Your task to perform on an android device: Add "lg ultragear" to the cart on amazon.com, then select checkout. Image 0: 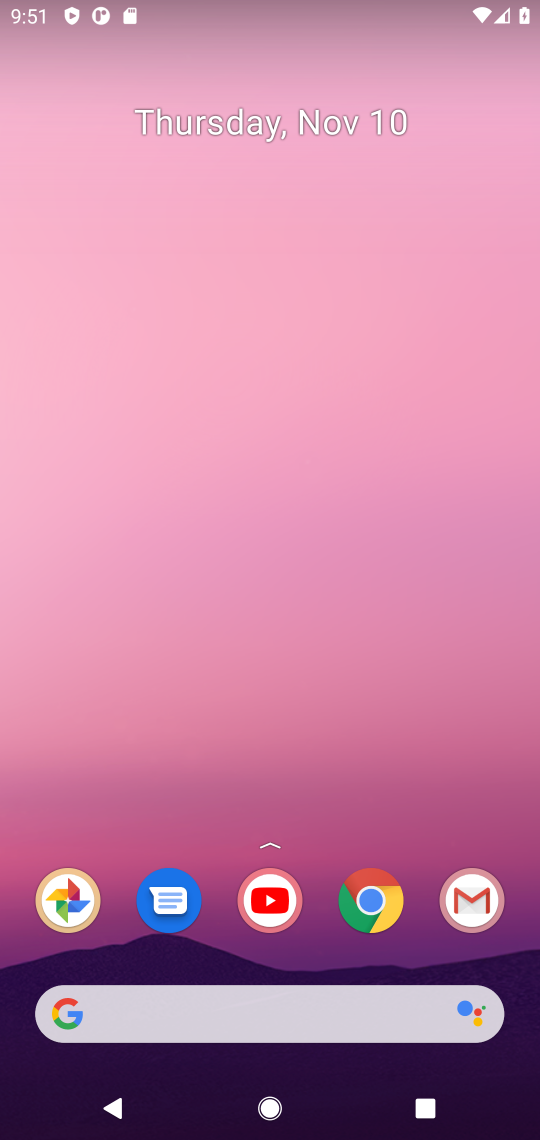
Step 0: press home button
Your task to perform on an android device: Add "lg ultragear" to the cart on amazon.com, then select checkout. Image 1: 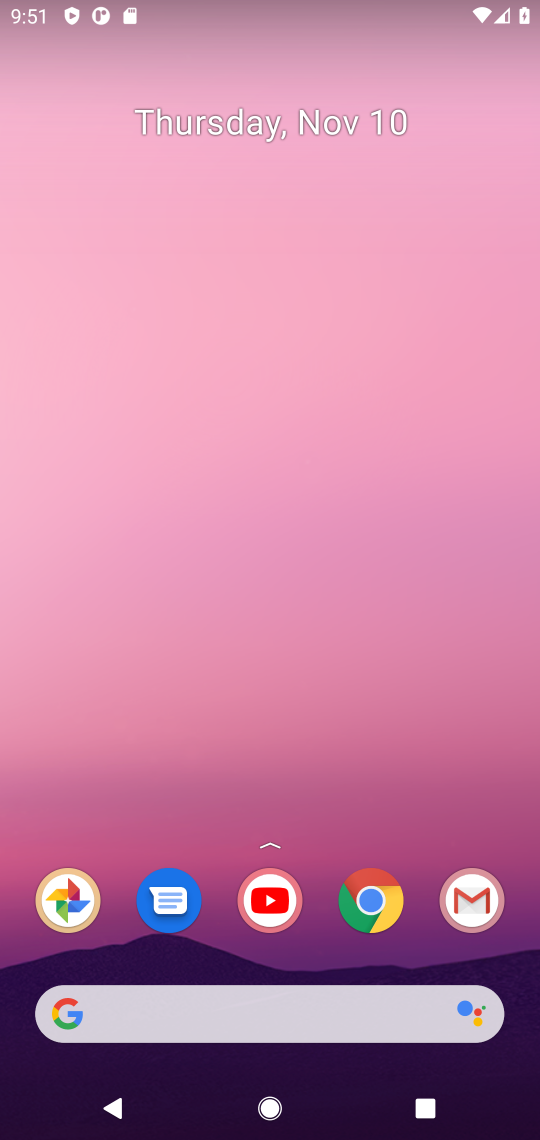
Step 1: click (389, 916)
Your task to perform on an android device: Add "lg ultragear" to the cart on amazon.com, then select checkout. Image 2: 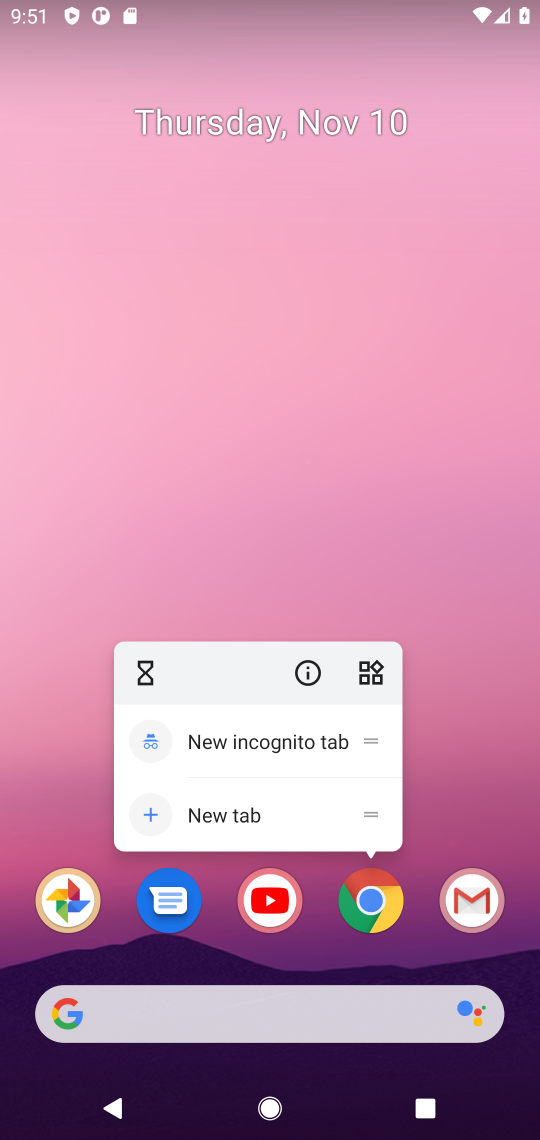
Step 2: click (375, 905)
Your task to perform on an android device: Add "lg ultragear" to the cart on amazon.com, then select checkout. Image 3: 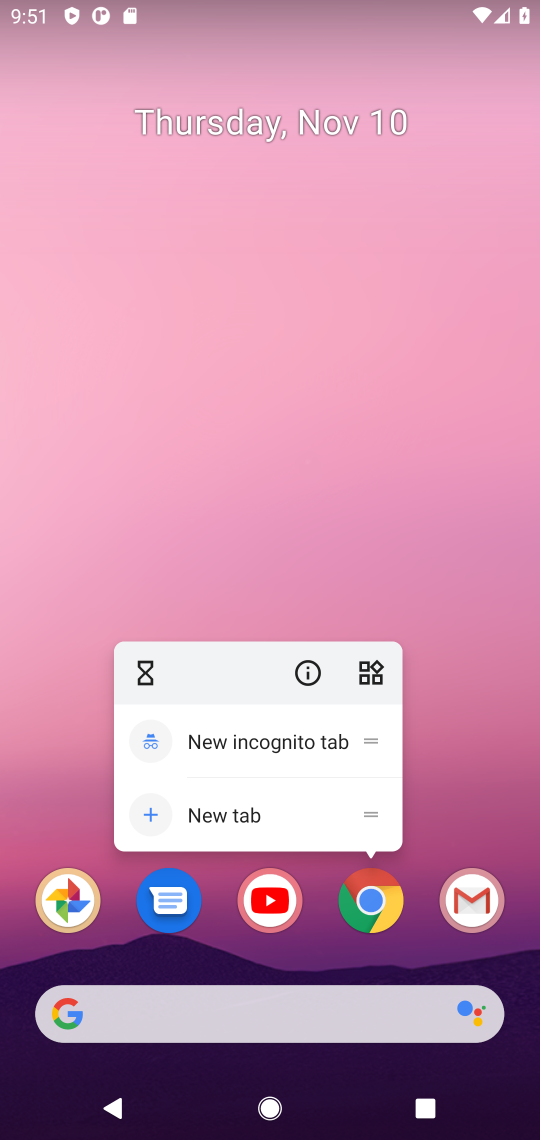
Step 3: click (375, 905)
Your task to perform on an android device: Add "lg ultragear" to the cart on amazon.com, then select checkout. Image 4: 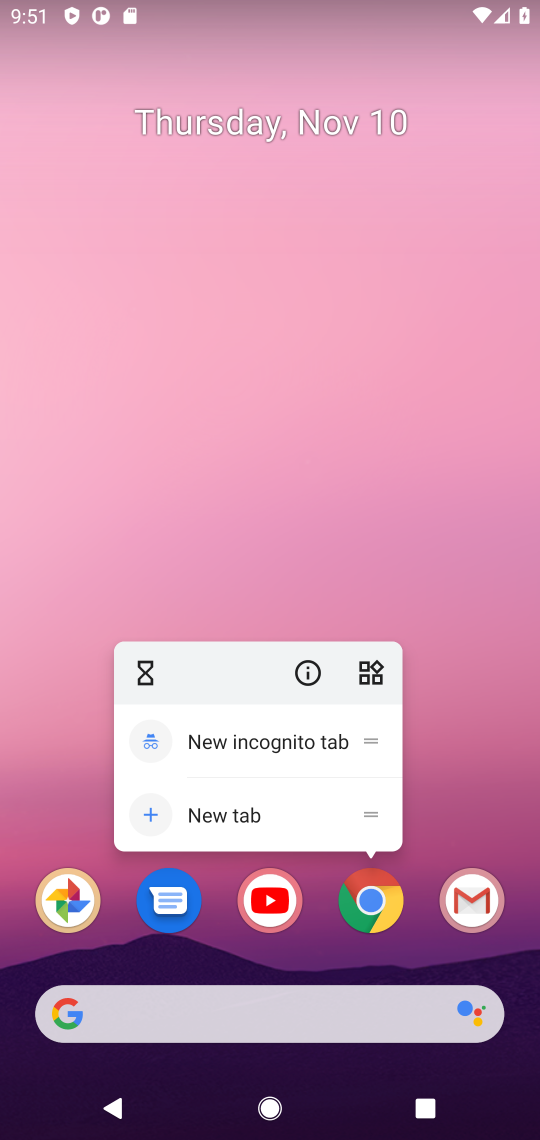
Step 4: click (375, 908)
Your task to perform on an android device: Add "lg ultragear" to the cart on amazon.com, then select checkout. Image 5: 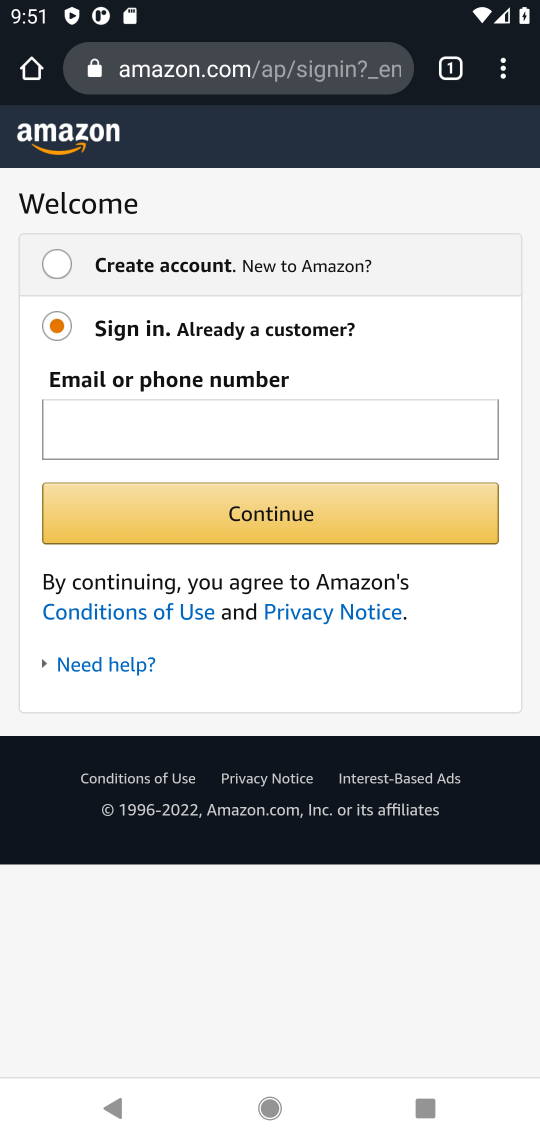
Step 5: press back button
Your task to perform on an android device: Add "lg ultragear" to the cart on amazon.com, then select checkout. Image 6: 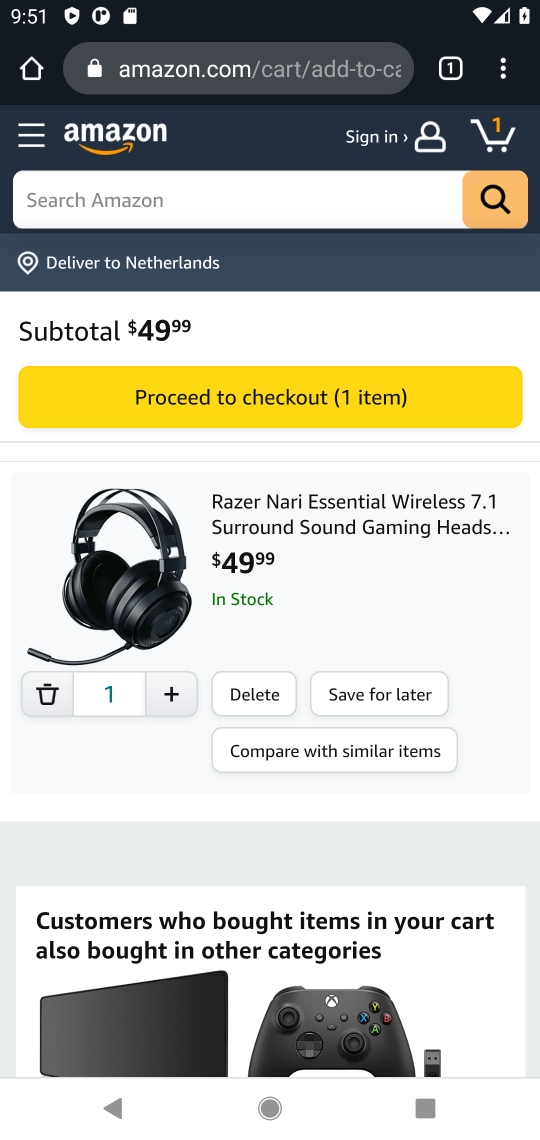
Step 6: click (98, 178)
Your task to perform on an android device: Add "lg ultragear" to the cart on amazon.com, then select checkout. Image 7: 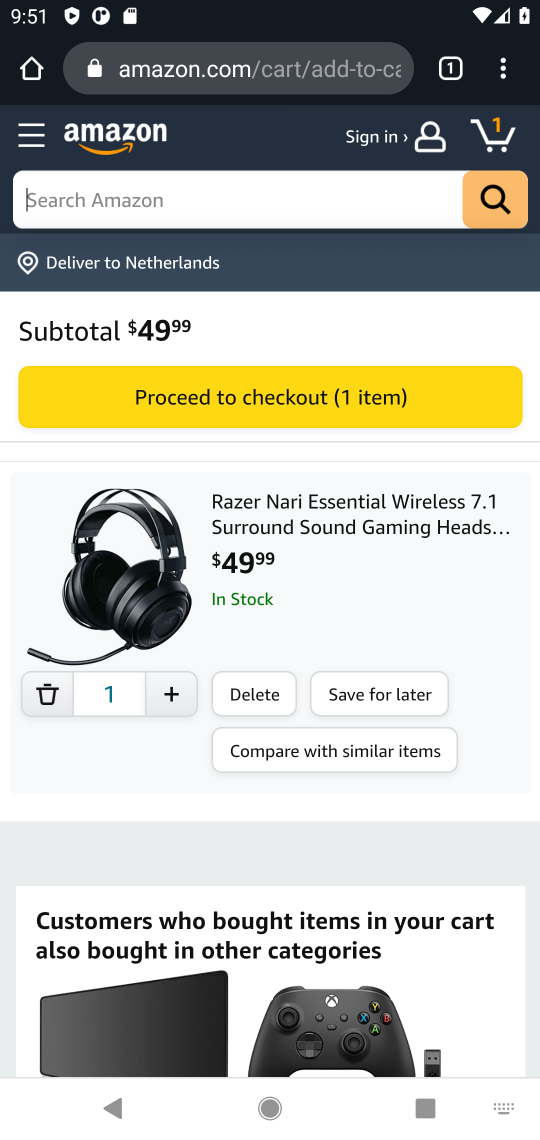
Step 7: click (91, 185)
Your task to perform on an android device: Add "lg ultragear" to the cart on amazon.com, then select checkout. Image 8: 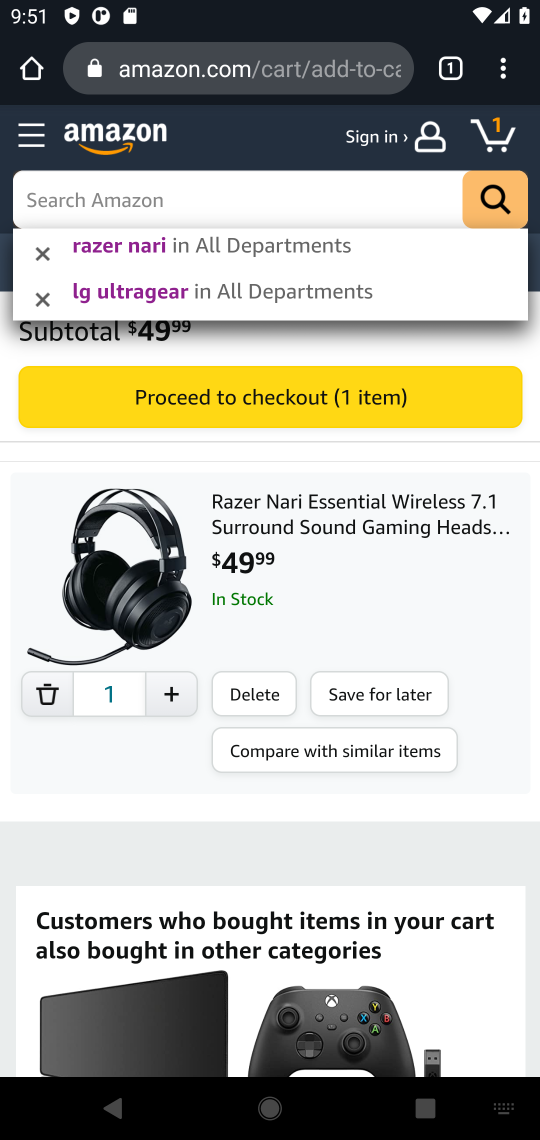
Step 8: click (121, 287)
Your task to perform on an android device: Add "lg ultragear" to the cart on amazon.com, then select checkout. Image 9: 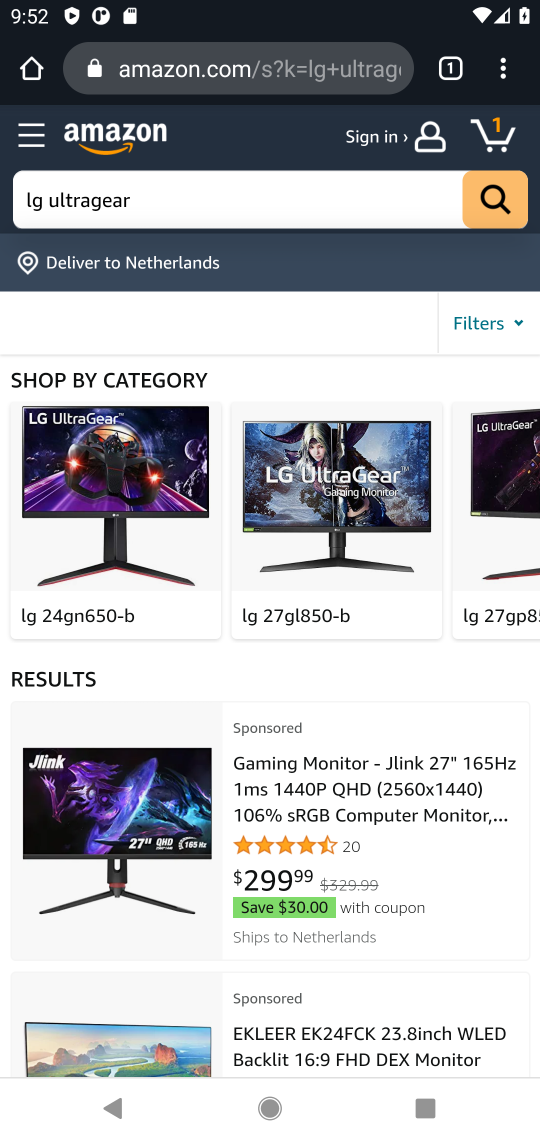
Step 9: task complete